Your task to perform on an android device: turn off notifications in google photos Image 0: 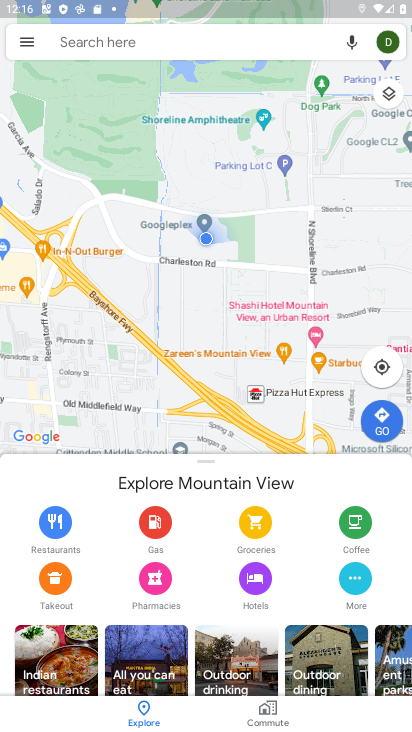
Step 0: press home button
Your task to perform on an android device: turn off notifications in google photos Image 1: 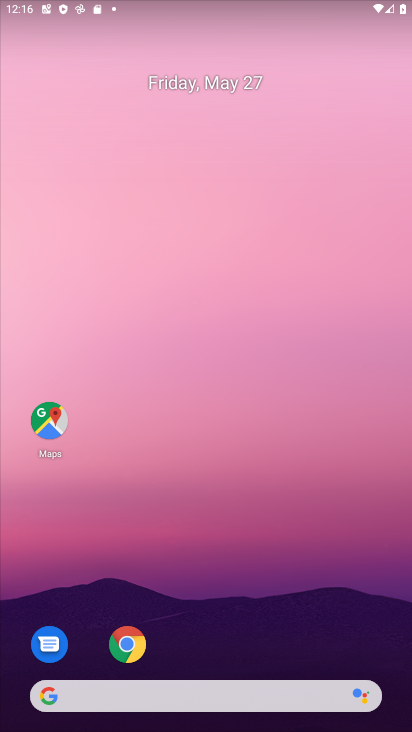
Step 1: drag from (298, 619) to (277, 21)
Your task to perform on an android device: turn off notifications in google photos Image 2: 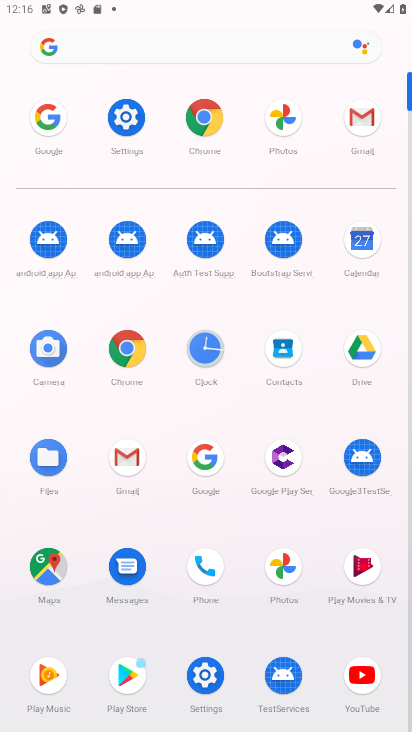
Step 2: click (277, 573)
Your task to perform on an android device: turn off notifications in google photos Image 3: 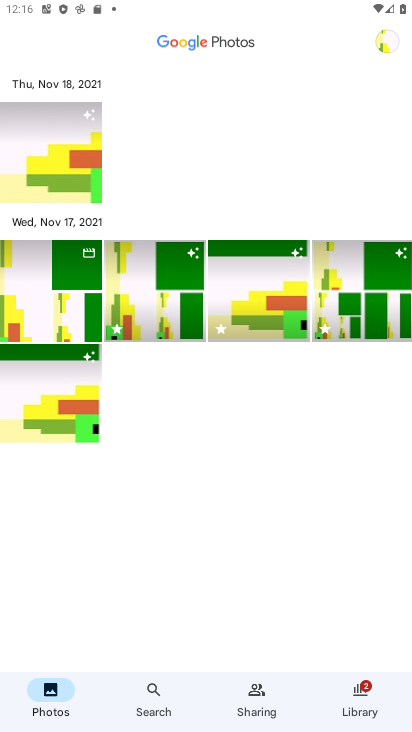
Step 3: click (386, 32)
Your task to perform on an android device: turn off notifications in google photos Image 4: 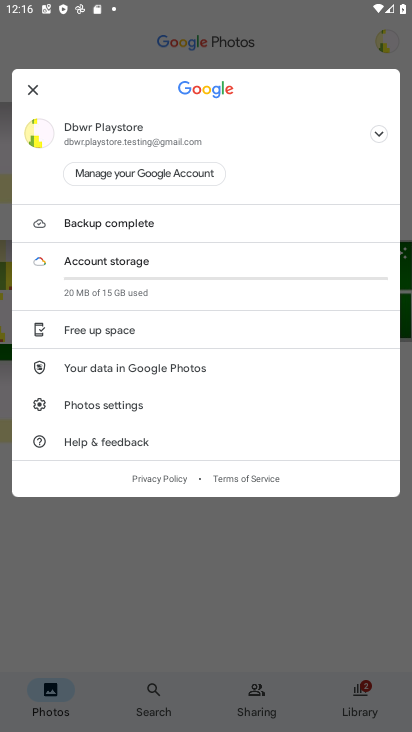
Step 4: click (130, 406)
Your task to perform on an android device: turn off notifications in google photos Image 5: 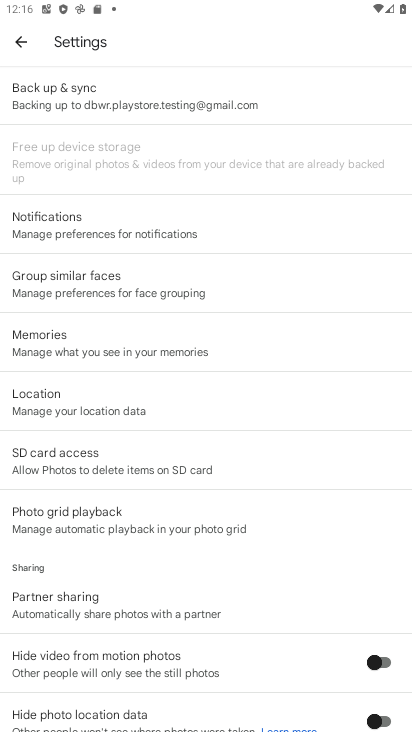
Step 5: click (97, 229)
Your task to perform on an android device: turn off notifications in google photos Image 6: 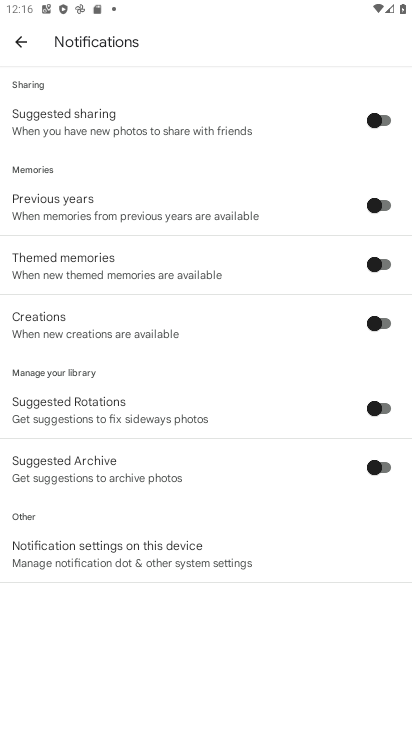
Step 6: task complete